Your task to perform on an android device: Find coffee shops on Maps Image 0: 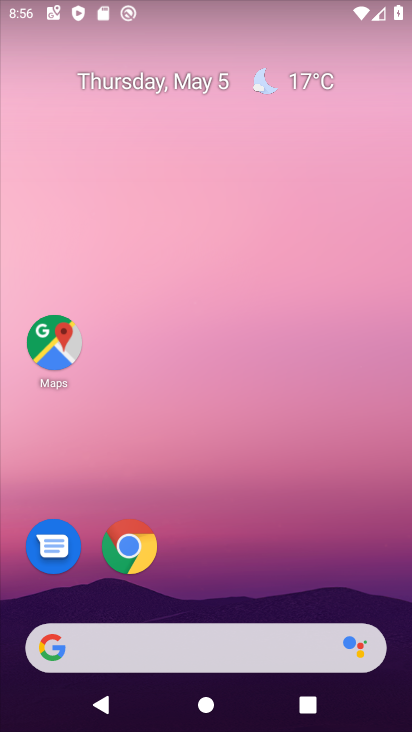
Step 0: drag from (200, 653) to (305, 104)
Your task to perform on an android device: Find coffee shops on Maps Image 1: 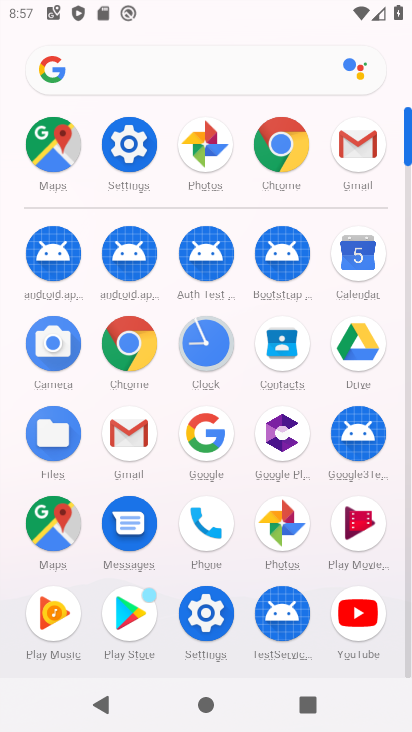
Step 1: click (41, 160)
Your task to perform on an android device: Find coffee shops on Maps Image 2: 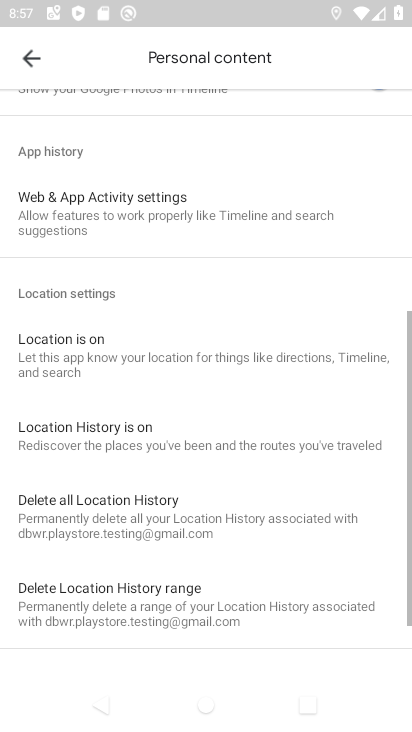
Step 2: click (31, 55)
Your task to perform on an android device: Find coffee shops on Maps Image 3: 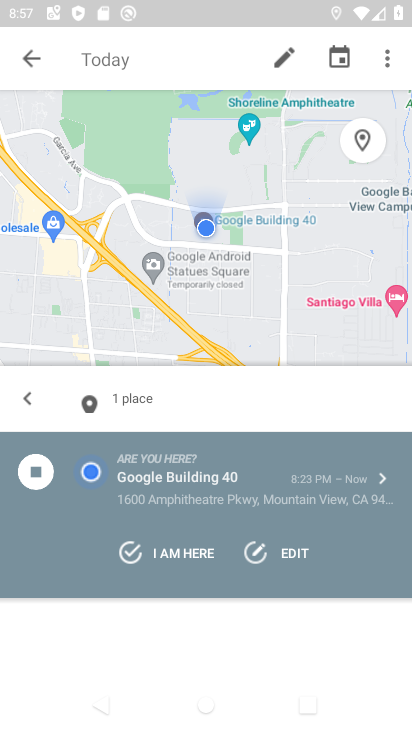
Step 3: click (31, 55)
Your task to perform on an android device: Find coffee shops on Maps Image 4: 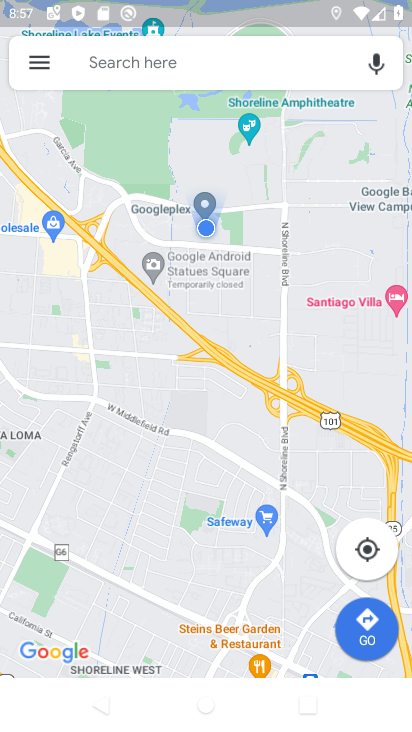
Step 4: click (139, 63)
Your task to perform on an android device: Find coffee shops on Maps Image 5: 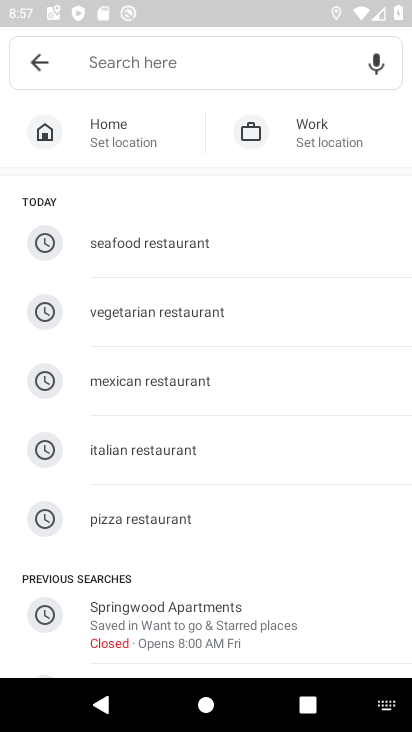
Step 5: type "coffee"
Your task to perform on an android device: Find coffee shops on Maps Image 6: 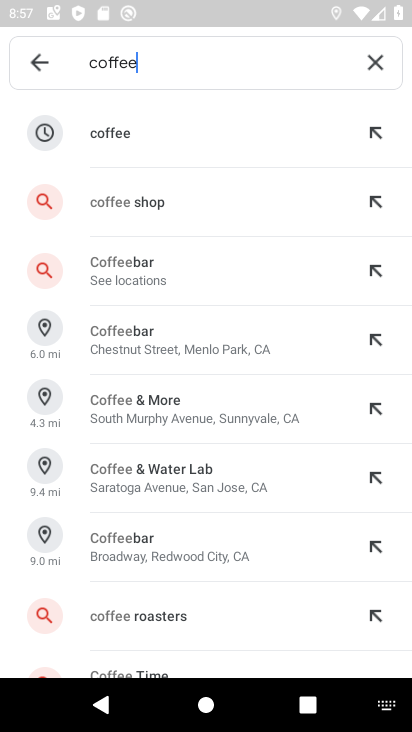
Step 6: click (130, 203)
Your task to perform on an android device: Find coffee shops on Maps Image 7: 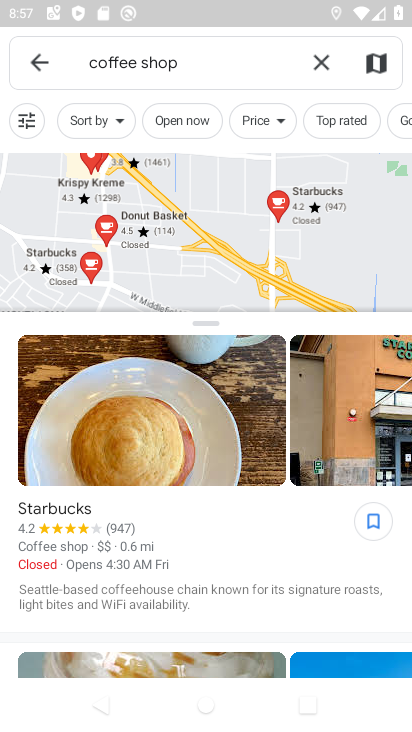
Step 7: task complete